Your task to perform on an android device: What's the weather? Image 0: 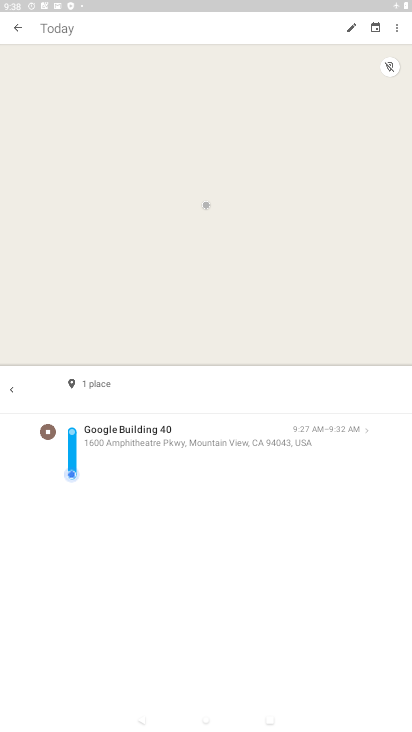
Step 0: drag from (169, 608) to (180, 156)
Your task to perform on an android device: What's the weather? Image 1: 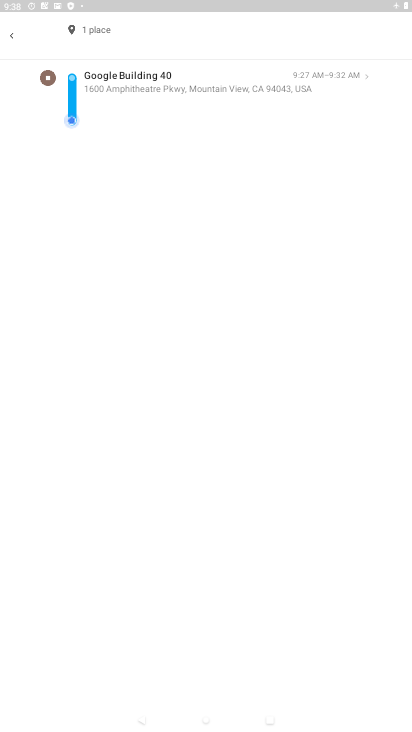
Step 1: press home button
Your task to perform on an android device: What's the weather? Image 2: 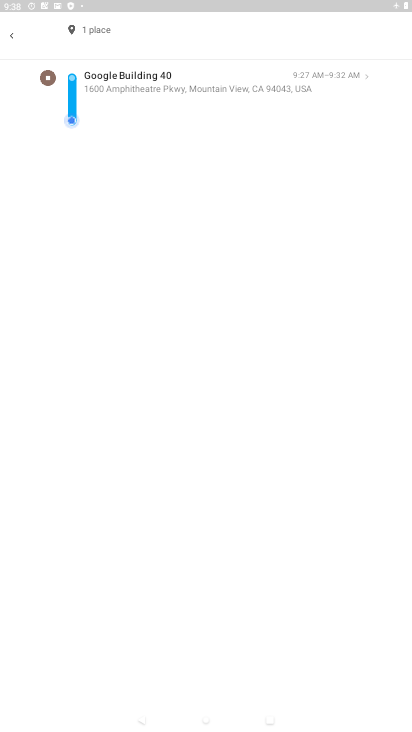
Step 2: drag from (191, 95) to (358, 28)
Your task to perform on an android device: What's the weather? Image 3: 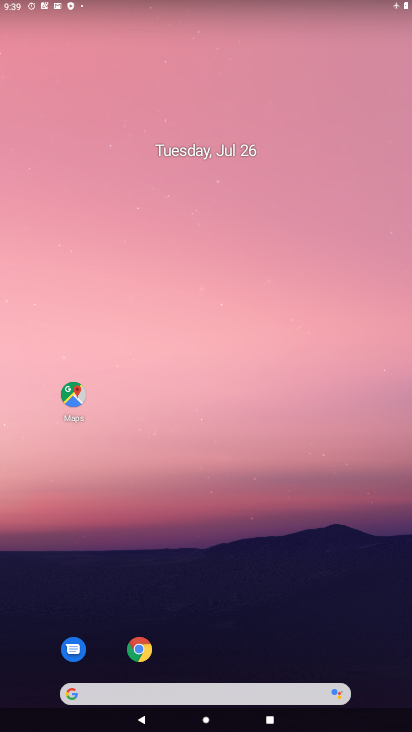
Step 3: drag from (210, 573) to (250, 50)
Your task to perform on an android device: What's the weather? Image 4: 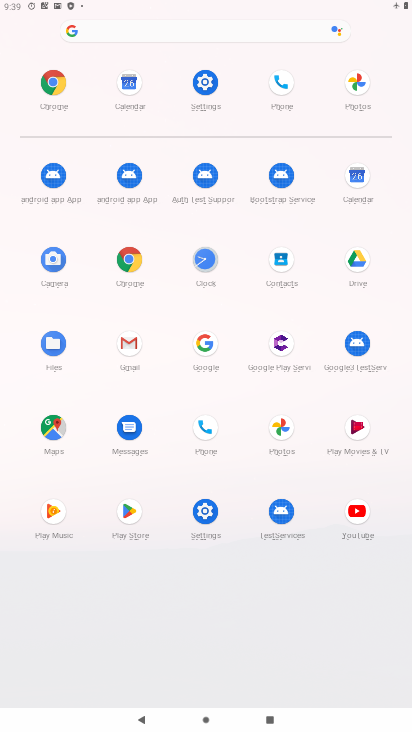
Step 4: click (170, 33)
Your task to perform on an android device: What's the weather? Image 5: 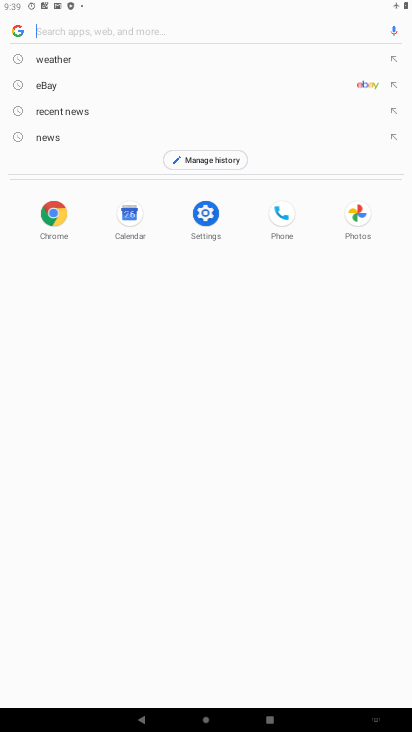
Step 5: click (55, 68)
Your task to perform on an android device: What's the weather? Image 6: 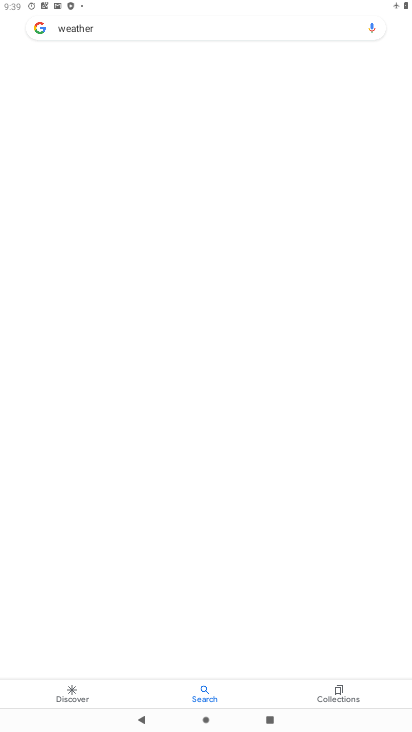
Step 6: drag from (147, 478) to (167, 152)
Your task to perform on an android device: What's the weather? Image 7: 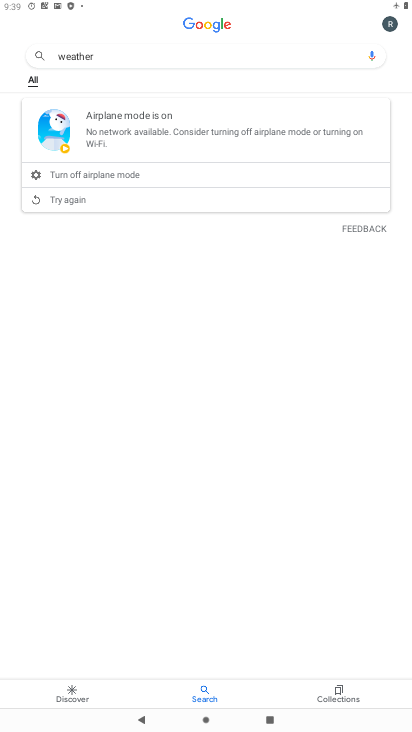
Step 7: click (263, 42)
Your task to perform on an android device: What's the weather? Image 8: 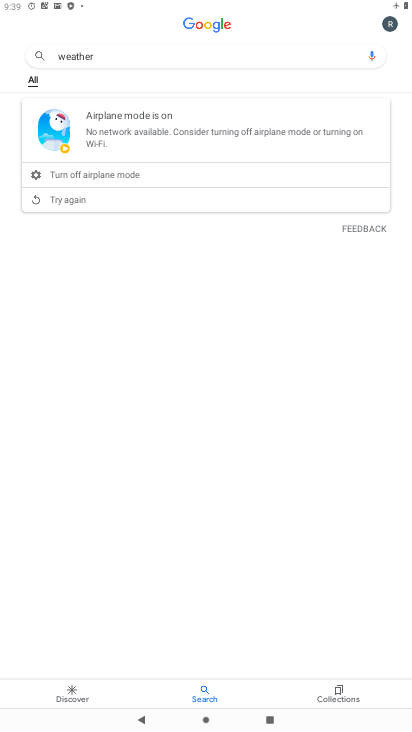
Step 8: task complete